Your task to perform on an android device: Open display settings Image 0: 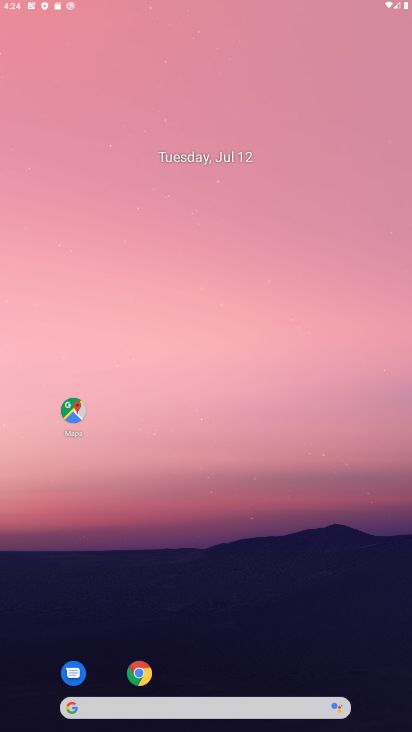
Step 0: drag from (215, 495) to (298, 156)
Your task to perform on an android device: Open display settings Image 1: 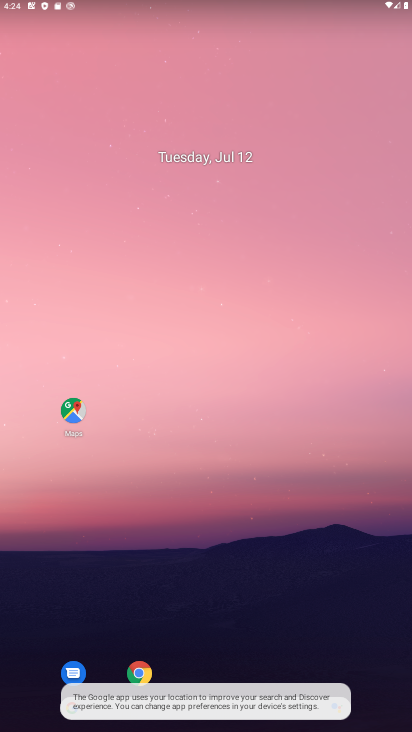
Step 1: drag from (243, 675) to (307, 103)
Your task to perform on an android device: Open display settings Image 2: 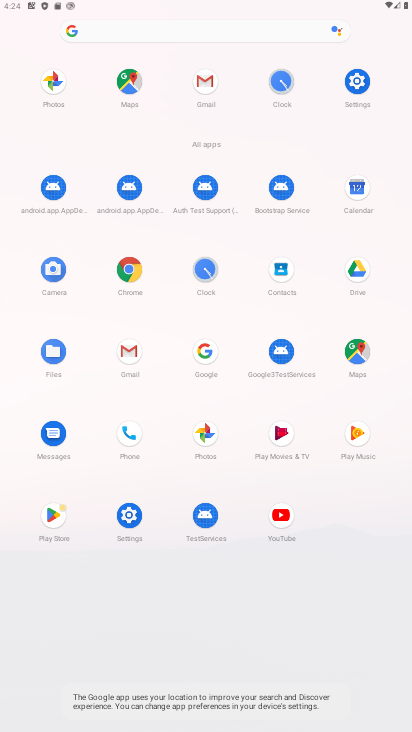
Step 2: click (127, 534)
Your task to perform on an android device: Open display settings Image 3: 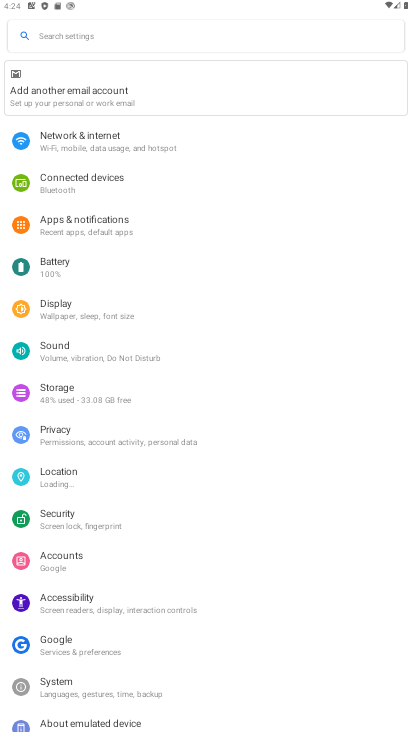
Step 3: click (62, 308)
Your task to perform on an android device: Open display settings Image 4: 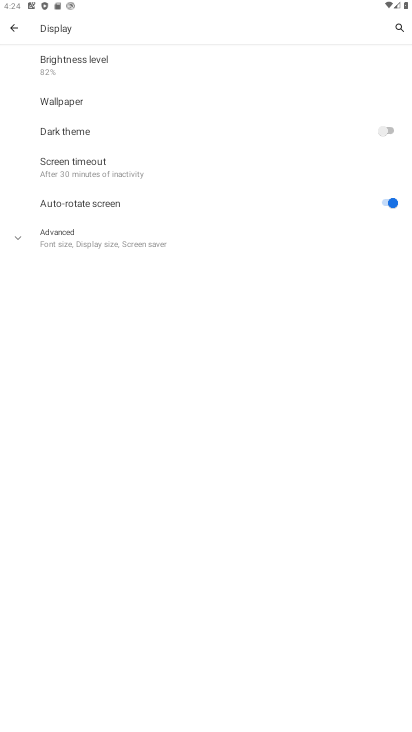
Step 4: task complete